Your task to perform on an android device: turn smart compose on in the gmail app Image 0: 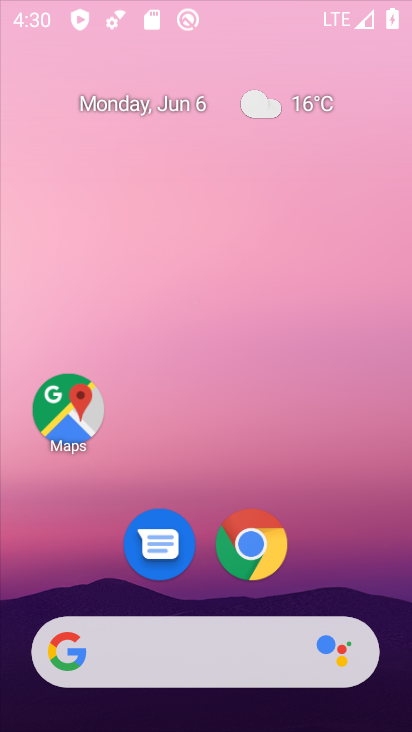
Step 0: press home button
Your task to perform on an android device: turn smart compose on in the gmail app Image 1: 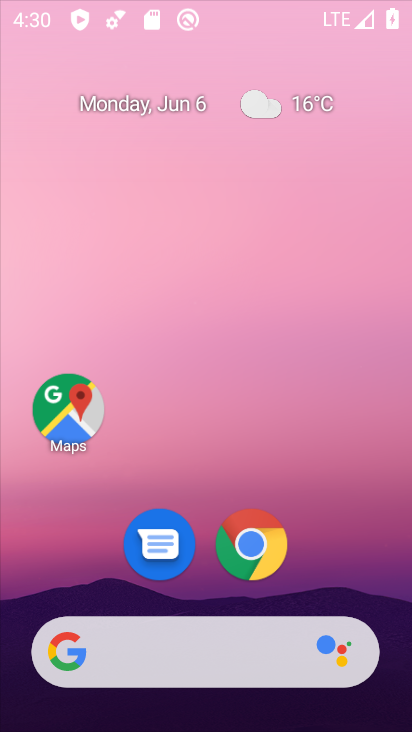
Step 1: click (234, 79)
Your task to perform on an android device: turn smart compose on in the gmail app Image 2: 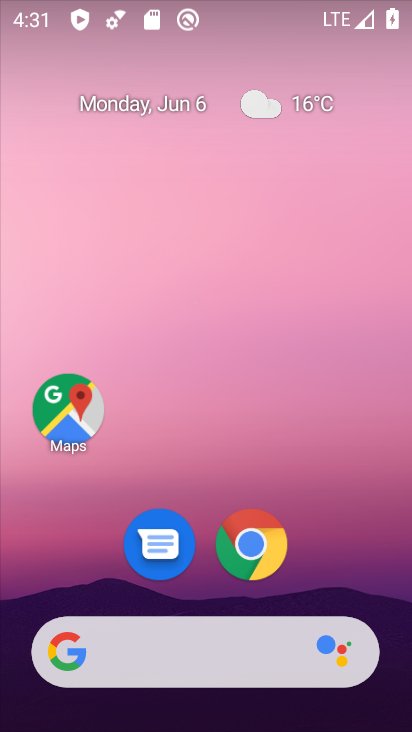
Step 2: drag from (206, 597) to (249, 129)
Your task to perform on an android device: turn smart compose on in the gmail app Image 3: 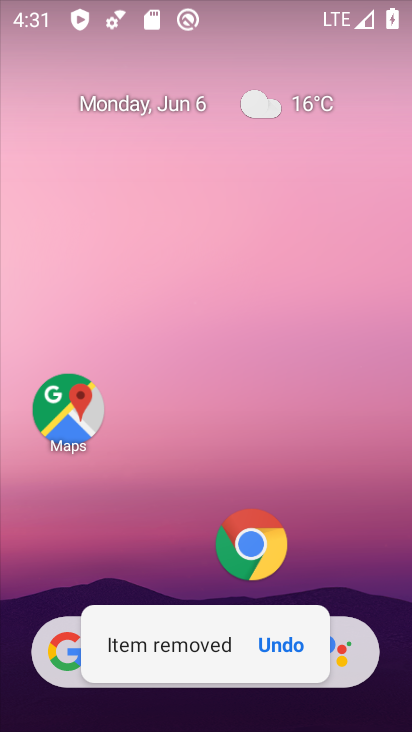
Step 3: drag from (184, 578) to (230, 116)
Your task to perform on an android device: turn smart compose on in the gmail app Image 4: 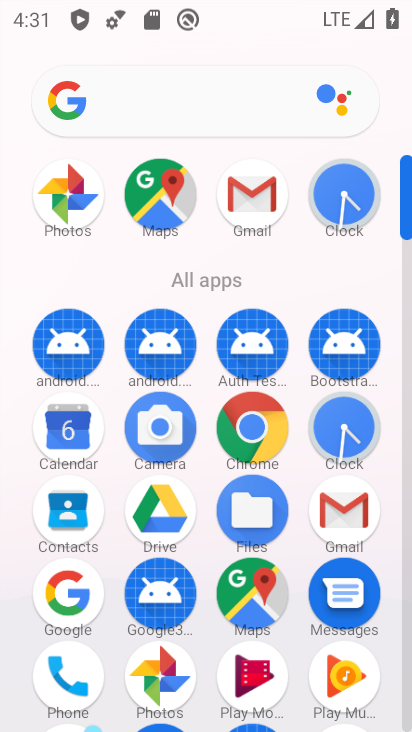
Step 4: click (338, 505)
Your task to perform on an android device: turn smart compose on in the gmail app Image 5: 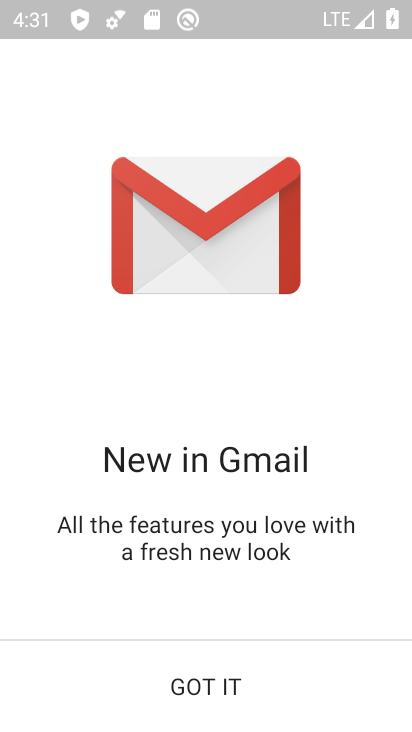
Step 5: click (213, 697)
Your task to perform on an android device: turn smart compose on in the gmail app Image 6: 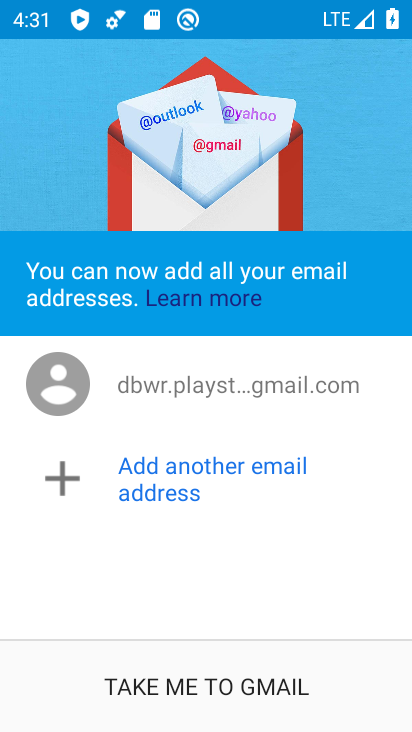
Step 6: click (213, 697)
Your task to perform on an android device: turn smart compose on in the gmail app Image 7: 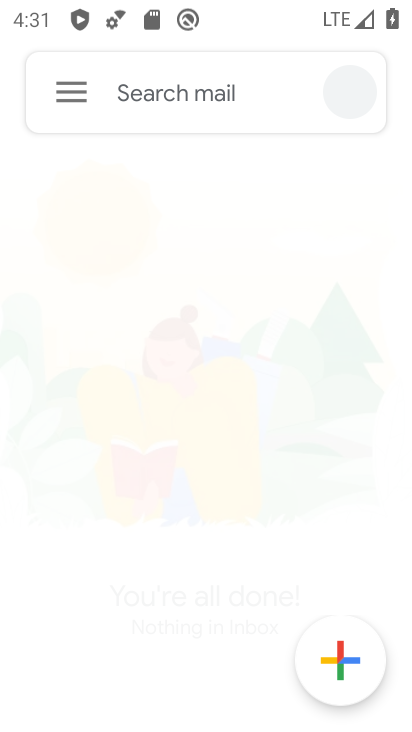
Step 7: click (57, 81)
Your task to perform on an android device: turn smart compose on in the gmail app Image 8: 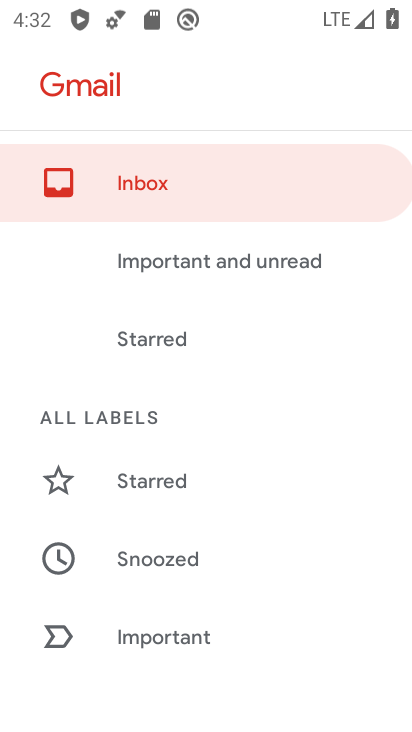
Step 8: drag from (186, 533) to (228, 105)
Your task to perform on an android device: turn smart compose on in the gmail app Image 9: 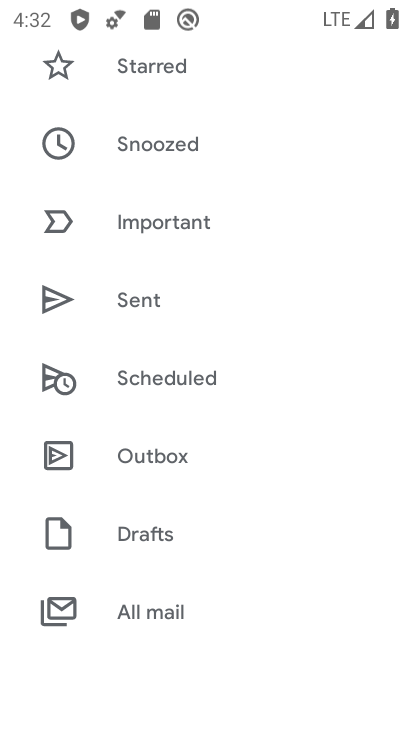
Step 9: drag from (186, 615) to (211, 106)
Your task to perform on an android device: turn smart compose on in the gmail app Image 10: 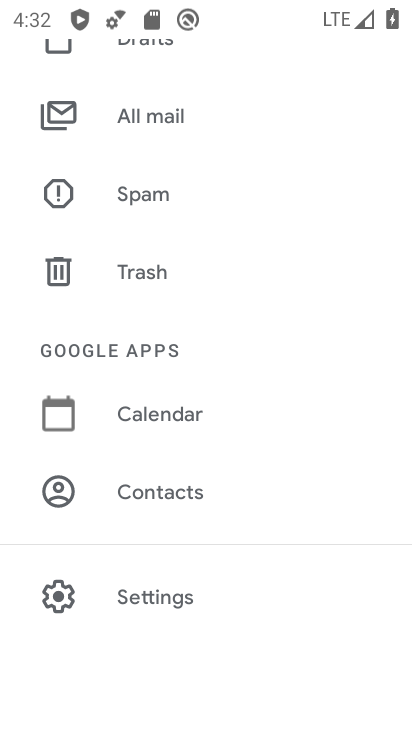
Step 10: click (208, 599)
Your task to perform on an android device: turn smart compose on in the gmail app Image 11: 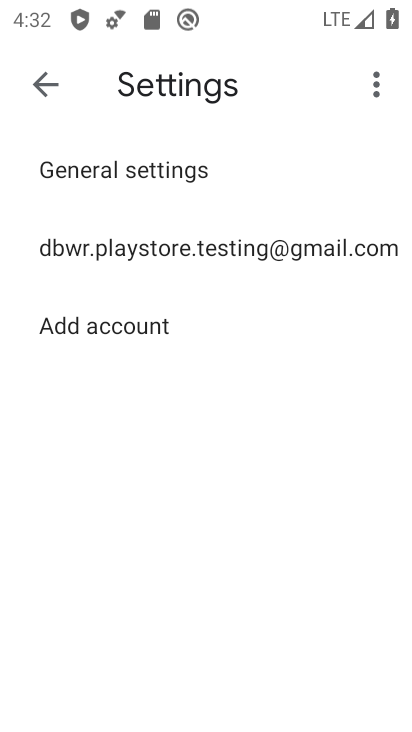
Step 11: click (242, 251)
Your task to perform on an android device: turn smart compose on in the gmail app Image 12: 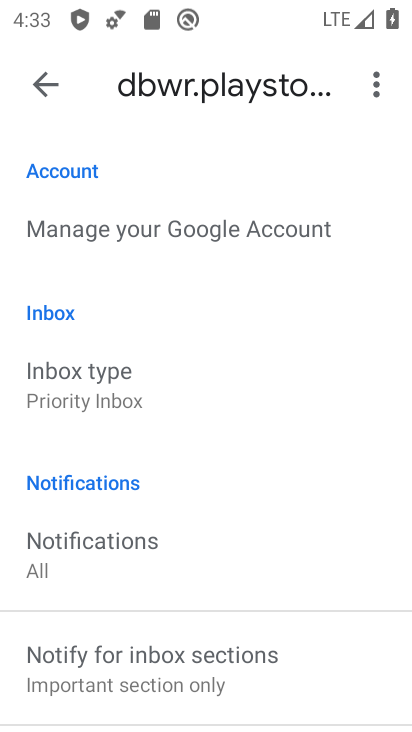
Step 12: task complete